Your task to perform on an android device: toggle pop-ups in chrome Image 0: 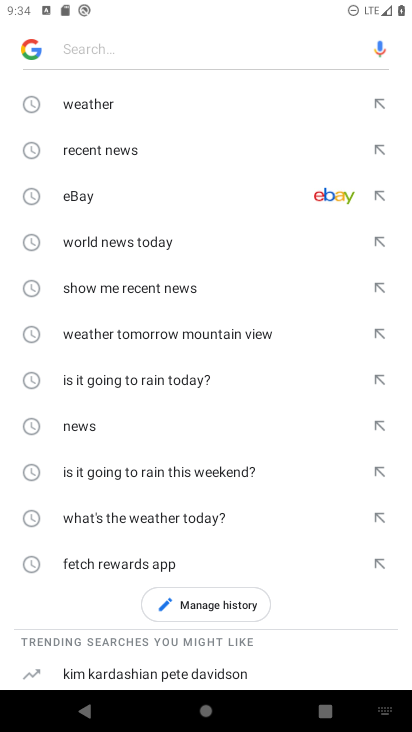
Step 0: press home button
Your task to perform on an android device: toggle pop-ups in chrome Image 1: 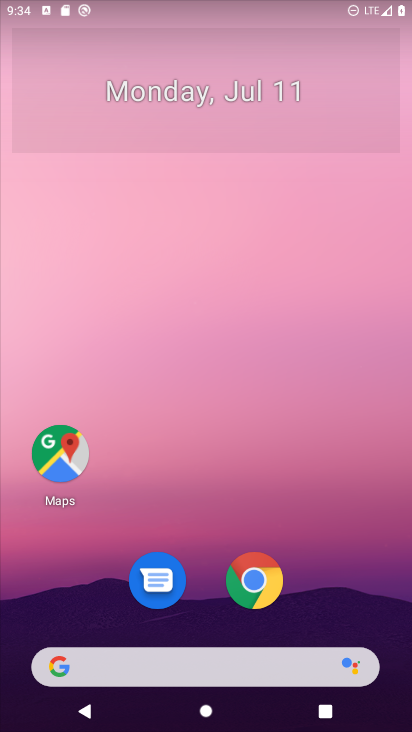
Step 1: drag from (293, 528) to (301, 85)
Your task to perform on an android device: toggle pop-ups in chrome Image 2: 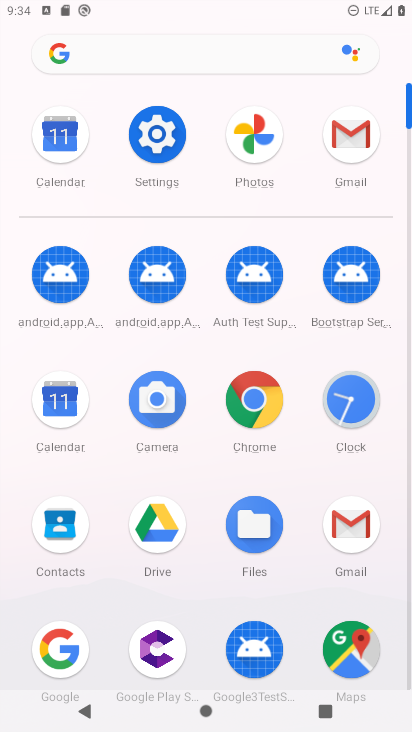
Step 2: click (246, 394)
Your task to perform on an android device: toggle pop-ups in chrome Image 3: 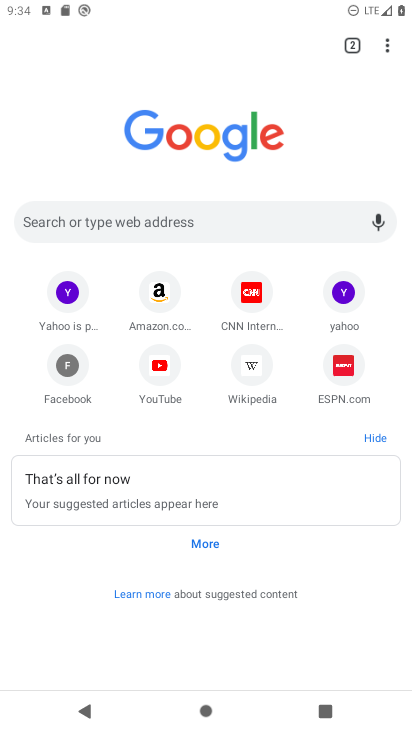
Step 3: click (383, 44)
Your task to perform on an android device: toggle pop-ups in chrome Image 4: 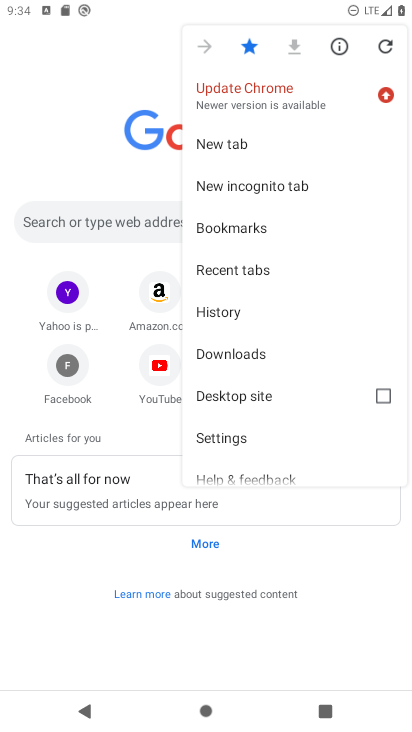
Step 4: click (254, 436)
Your task to perform on an android device: toggle pop-ups in chrome Image 5: 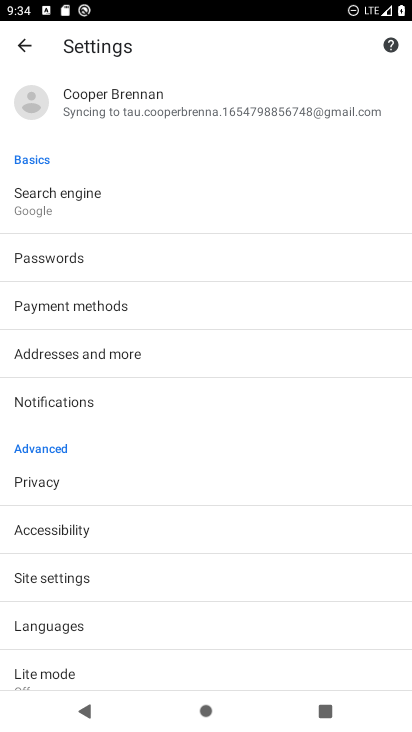
Step 5: click (75, 566)
Your task to perform on an android device: toggle pop-ups in chrome Image 6: 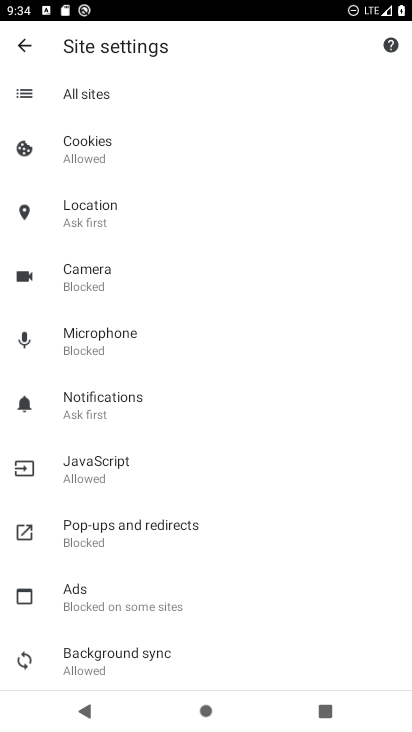
Step 6: click (119, 530)
Your task to perform on an android device: toggle pop-ups in chrome Image 7: 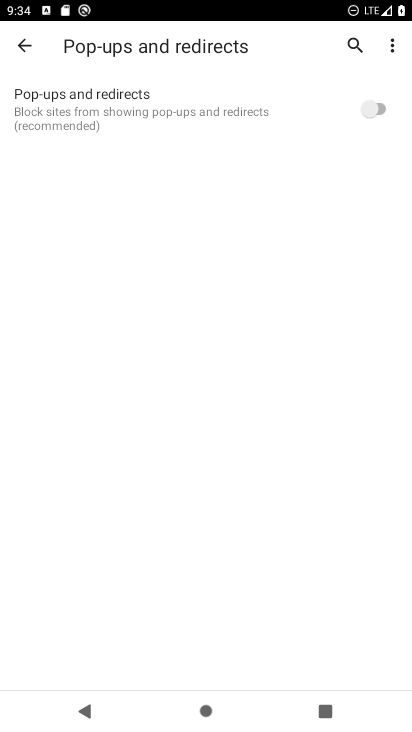
Step 7: click (374, 96)
Your task to perform on an android device: toggle pop-ups in chrome Image 8: 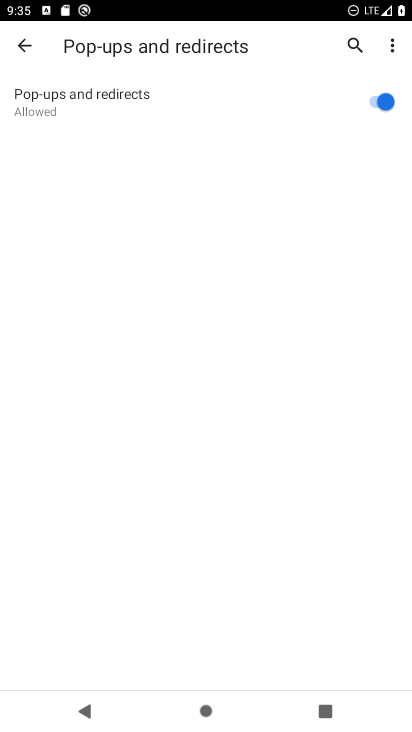
Step 8: task complete